Your task to perform on an android device: toggle javascript in the chrome app Image 0: 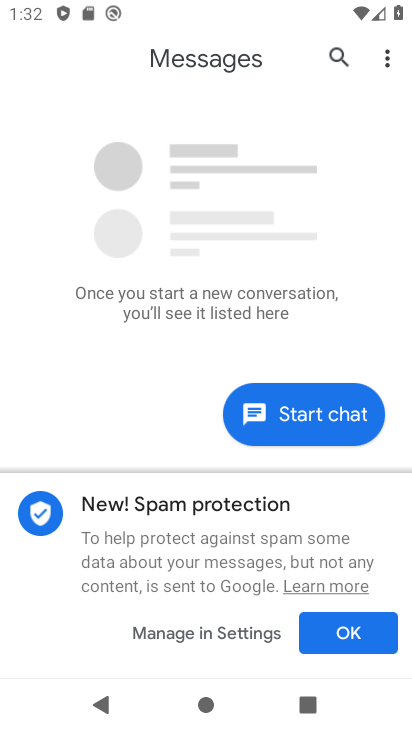
Step 0: press home button
Your task to perform on an android device: toggle javascript in the chrome app Image 1: 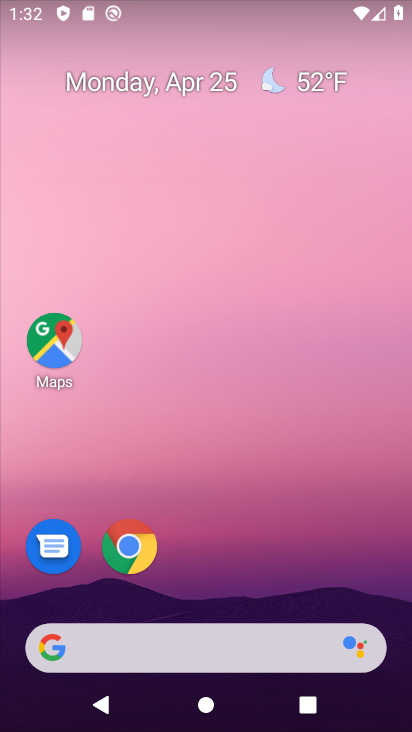
Step 1: click (126, 556)
Your task to perform on an android device: toggle javascript in the chrome app Image 2: 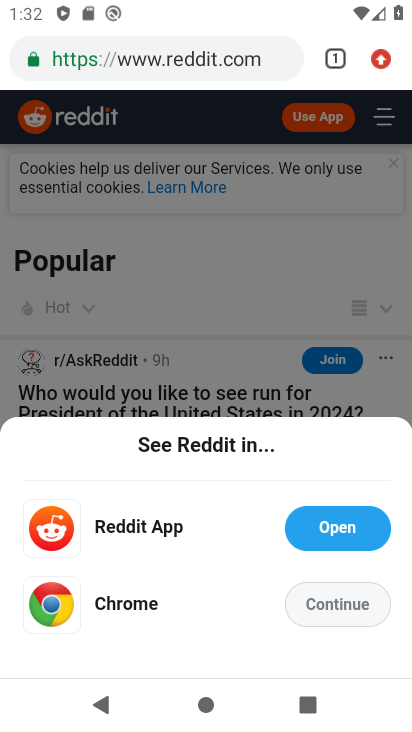
Step 2: drag from (378, 48) to (212, 568)
Your task to perform on an android device: toggle javascript in the chrome app Image 3: 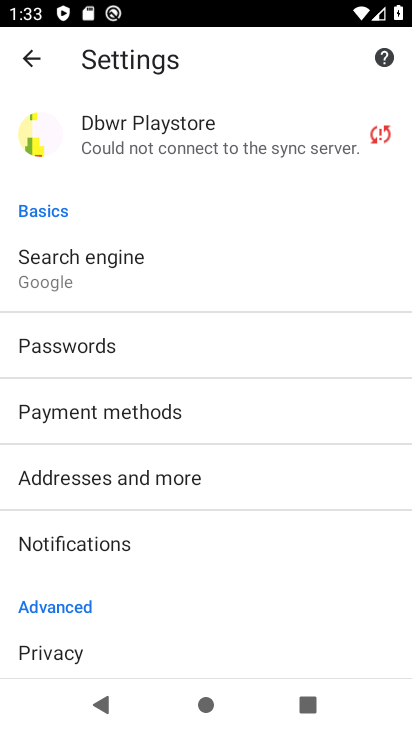
Step 3: drag from (122, 587) to (130, 35)
Your task to perform on an android device: toggle javascript in the chrome app Image 4: 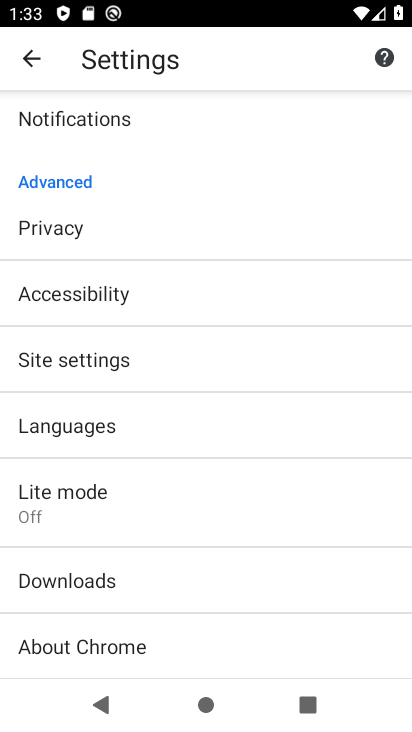
Step 4: click (72, 360)
Your task to perform on an android device: toggle javascript in the chrome app Image 5: 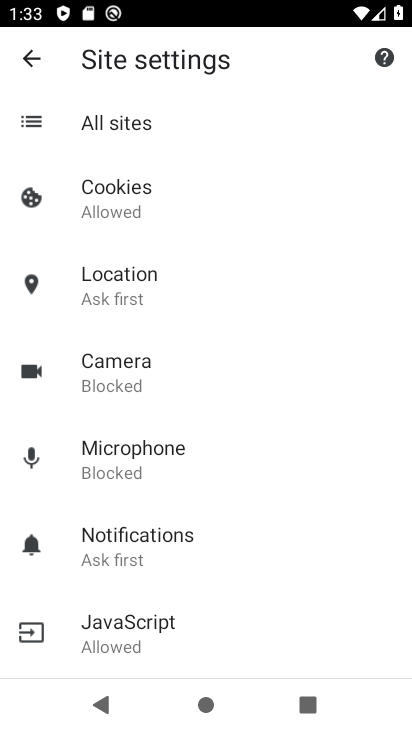
Step 5: click (136, 636)
Your task to perform on an android device: toggle javascript in the chrome app Image 6: 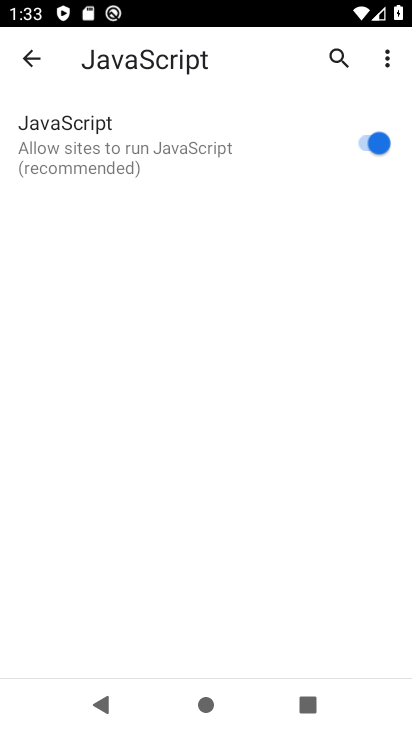
Step 6: click (370, 149)
Your task to perform on an android device: toggle javascript in the chrome app Image 7: 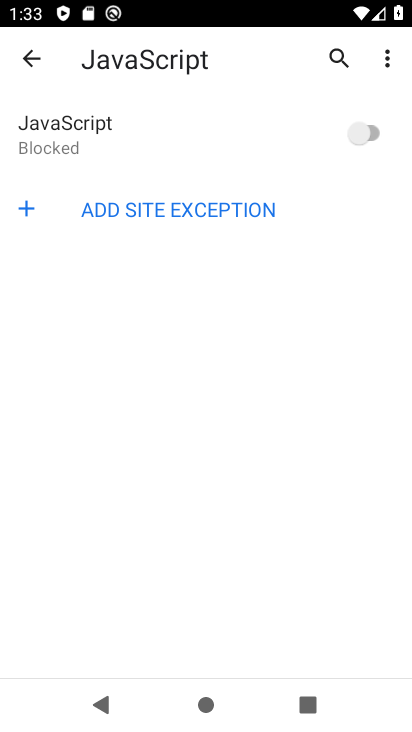
Step 7: task complete